Your task to perform on an android device: Go to Wikipedia Image 0: 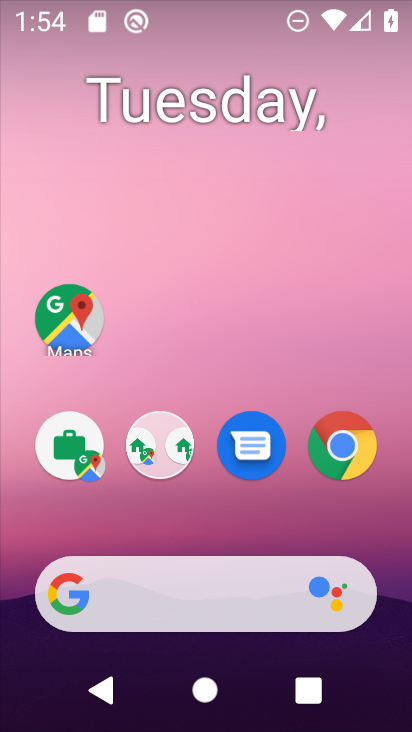
Step 0: click (347, 472)
Your task to perform on an android device: Go to Wikipedia Image 1: 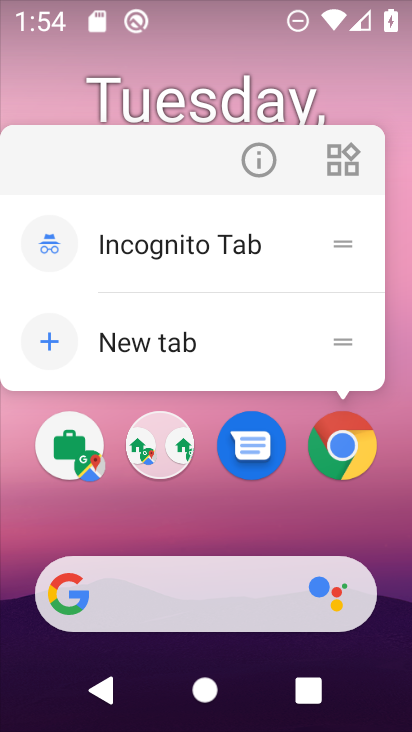
Step 1: click (182, 363)
Your task to perform on an android device: Go to Wikipedia Image 2: 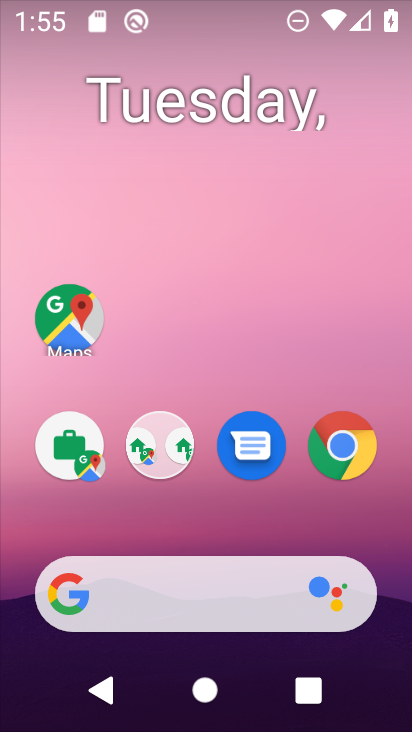
Step 2: click (347, 439)
Your task to perform on an android device: Go to Wikipedia Image 3: 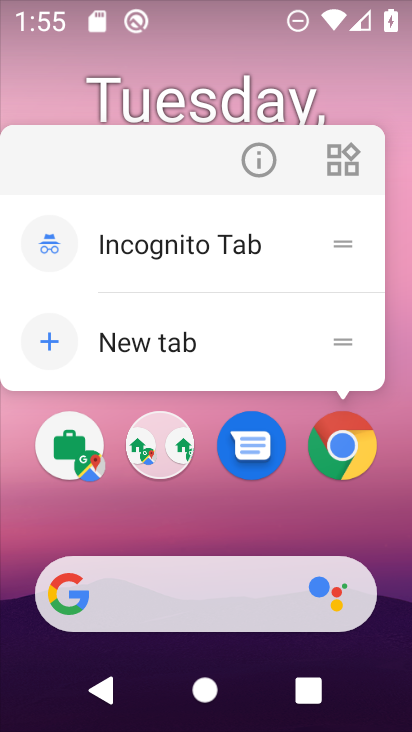
Step 3: click (210, 343)
Your task to perform on an android device: Go to Wikipedia Image 4: 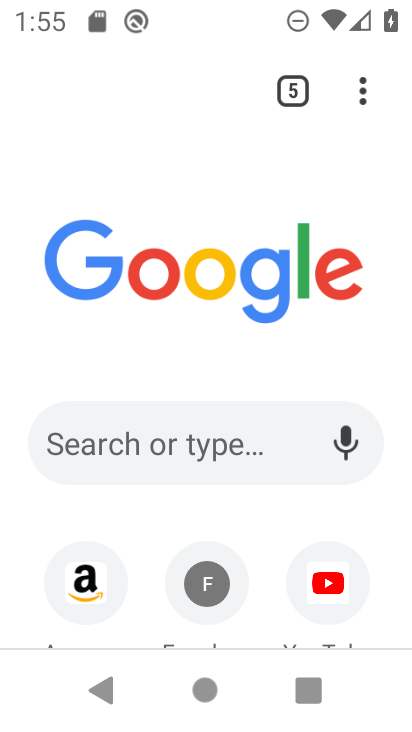
Step 4: click (363, 92)
Your task to perform on an android device: Go to Wikipedia Image 5: 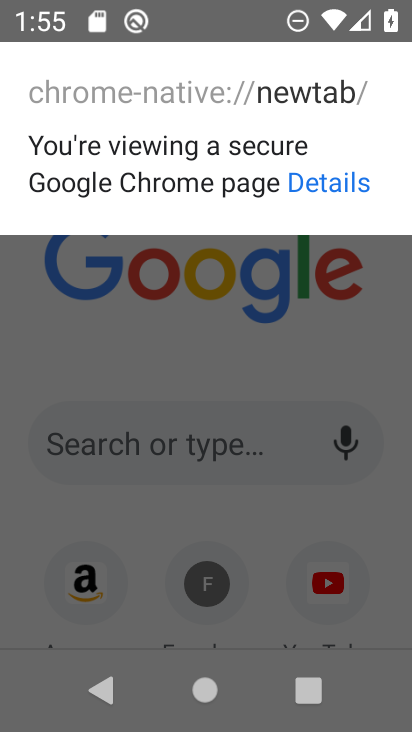
Step 5: click (258, 329)
Your task to perform on an android device: Go to Wikipedia Image 6: 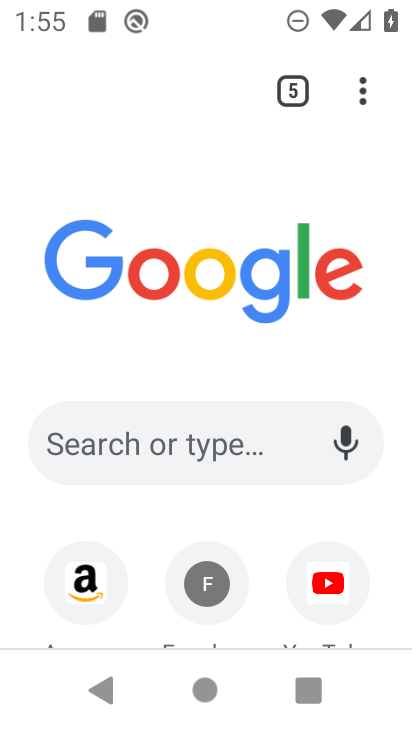
Step 6: click (167, 457)
Your task to perform on an android device: Go to Wikipedia Image 7: 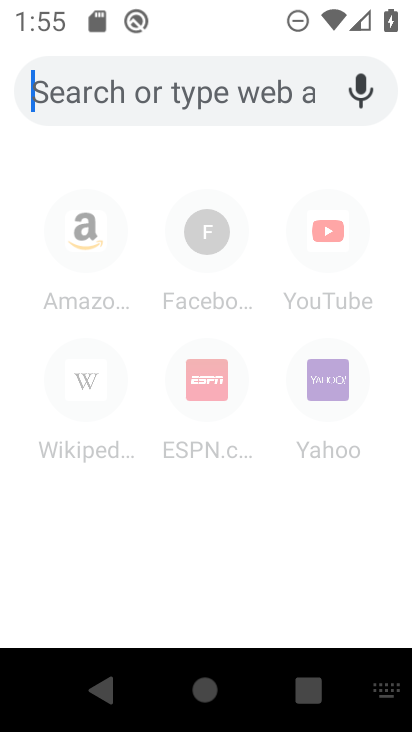
Step 7: type "Wikipedia"
Your task to perform on an android device: Go to Wikipedia Image 8: 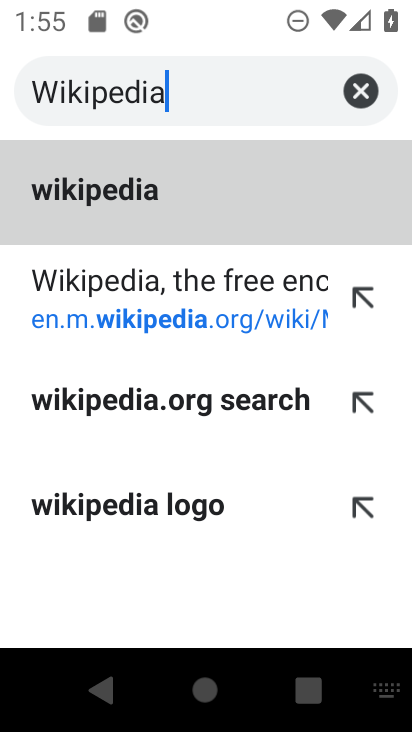
Step 8: type ""
Your task to perform on an android device: Go to Wikipedia Image 9: 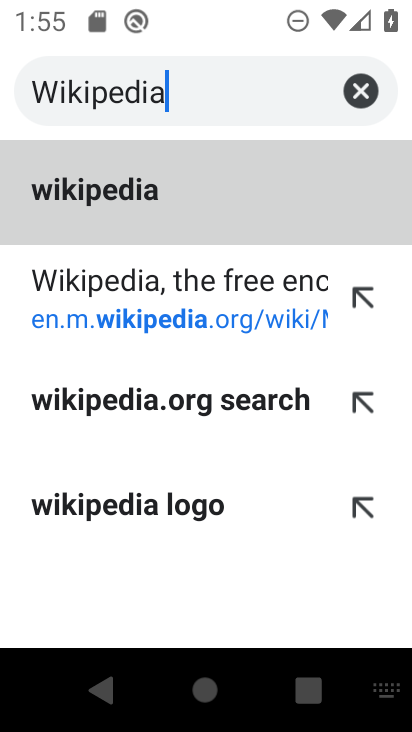
Step 9: click (193, 215)
Your task to perform on an android device: Go to Wikipedia Image 10: 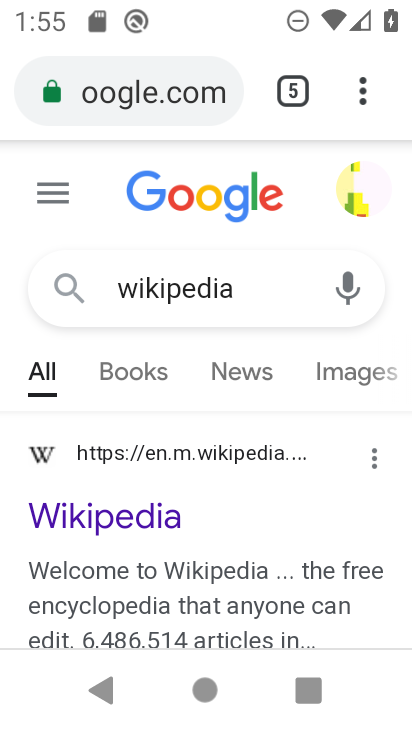
Step 10: click (149, 511)
Your task to perform on an android device: Go to Wikipedia Image 11: 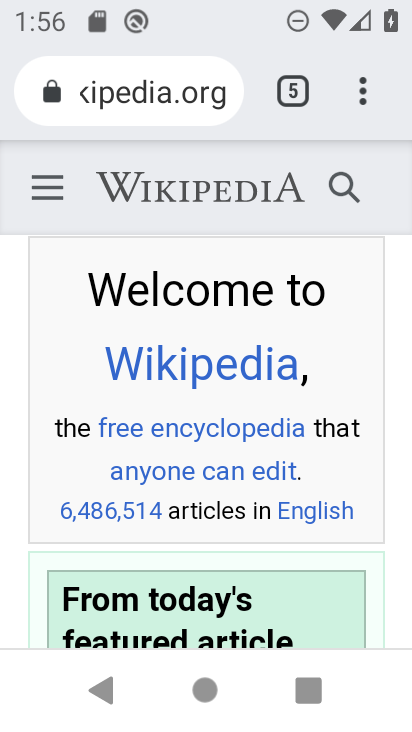
Step 11: task complete